Your task to perform on an android device: open device folders in google photos Image 0: 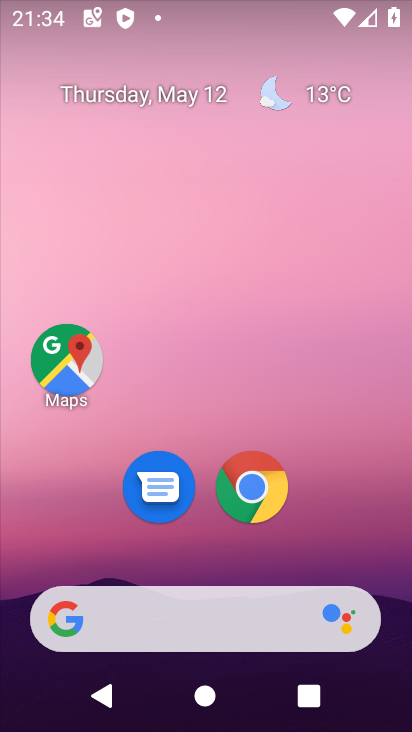
Step 0: drag from (209, 552) to (258, 108)
Your task to perform on an android device: open device folders in google photos Image 1: 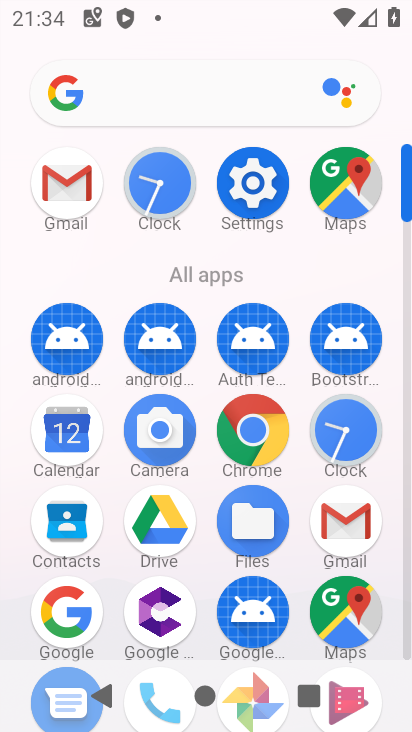
Step 1: click (249, 435)
Your task to perform on an android device: open device folders in google photos Image 2: 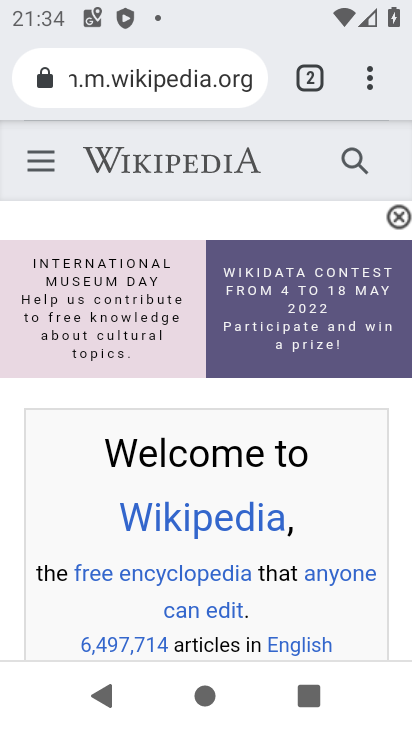
Step 2: click (378, 64)
Your task to perform on an android device: open device folders in google photos Image 3: 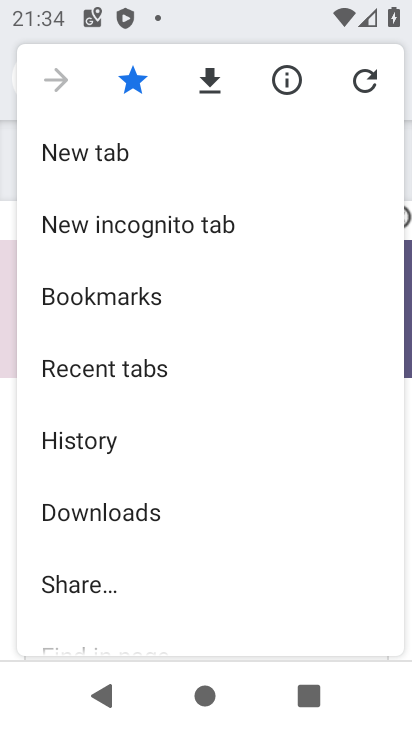
Step 3: press home button
Your task to perform on an android device: open device folders in google photos Image 4: 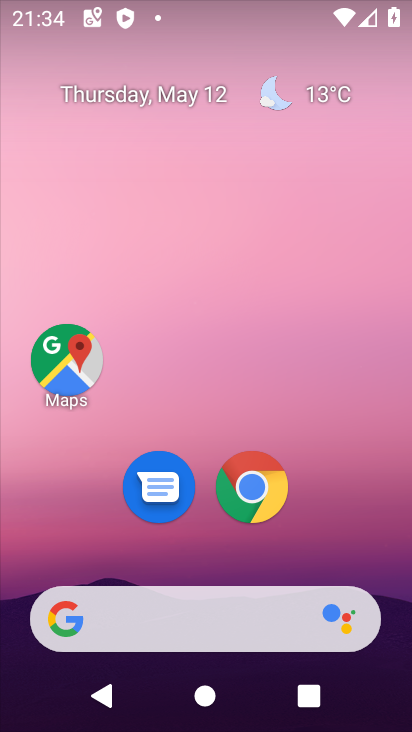
Step 4: drag from (252, 557) to (316, 89)
Your task to perform on an android device: open device folders in google photos Image 5: 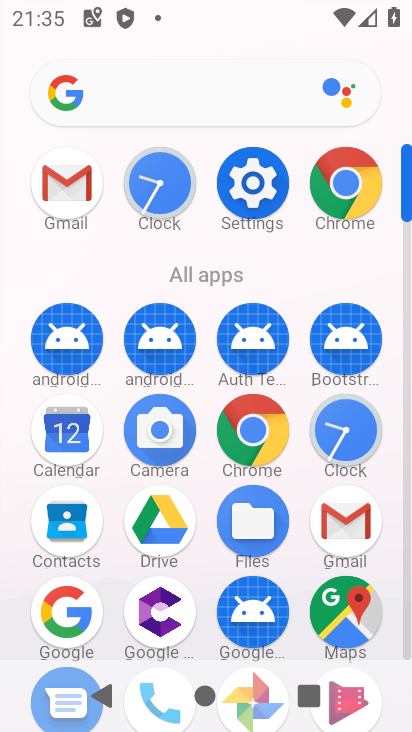
Step 5: drag from (217, 588) to (231, 193)
Your task to perform on an android device: open device folders in google photos Image 6: 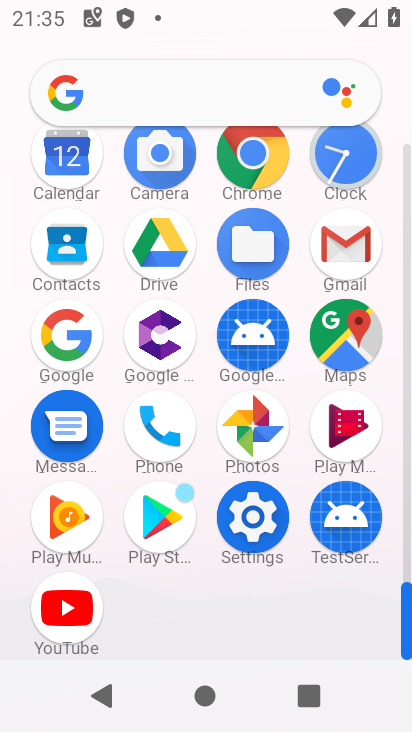
Step 6: click (246, 426)
Your task to perform on an android device: open device folders in google photos Image 7: 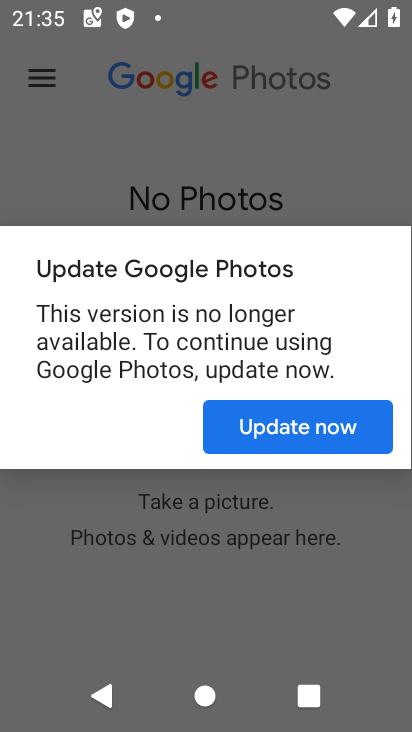
Step 7: click (246, 426)
Your task to perform on an android device: open device folders in google photos Image 8: 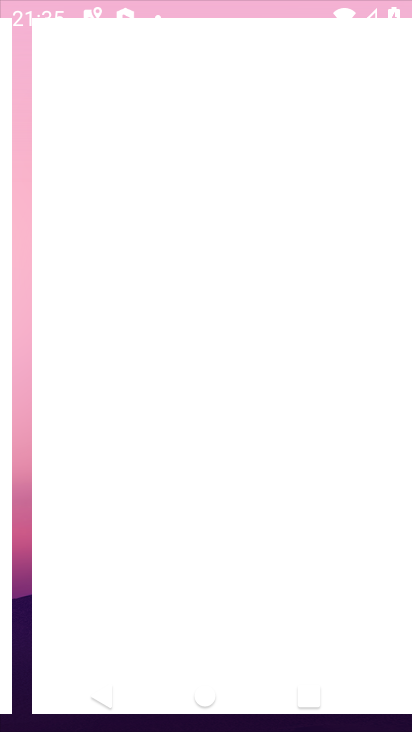
Step 8: click (246, 426)
Your task to perform on an android device: open device folders in google photos Image 9: 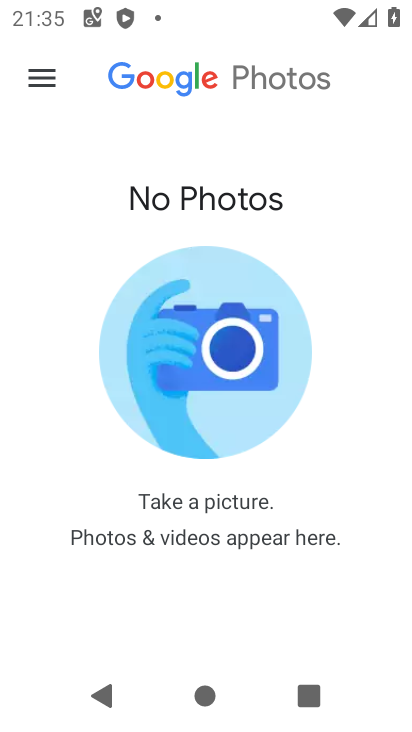
Step 9: click (246, 426)
Your task to perform on an android device: open device folders in google photos Image 10: 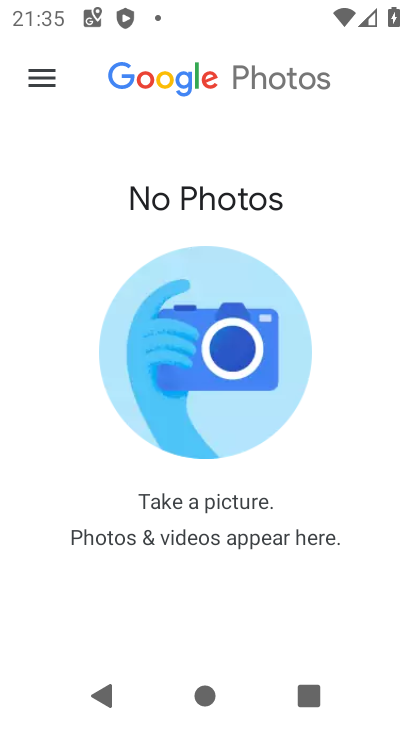
Step 10: click (38, 70)
Your task to perform on an android device: open device folders in google photos Image 11: 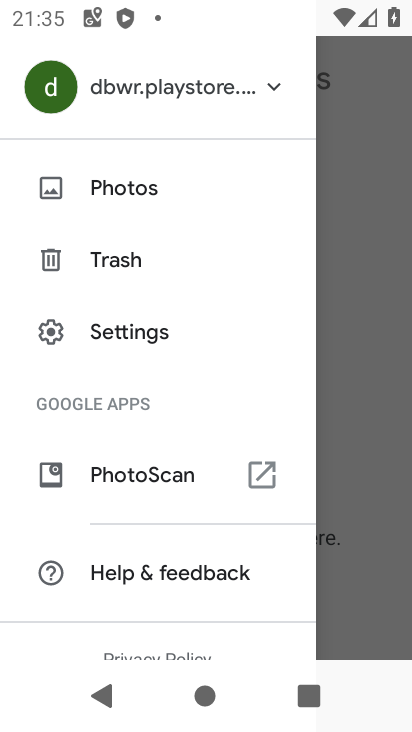
Step 11: task complete